Your task to perform on an android device: Go to Yahoo.com Image 0: 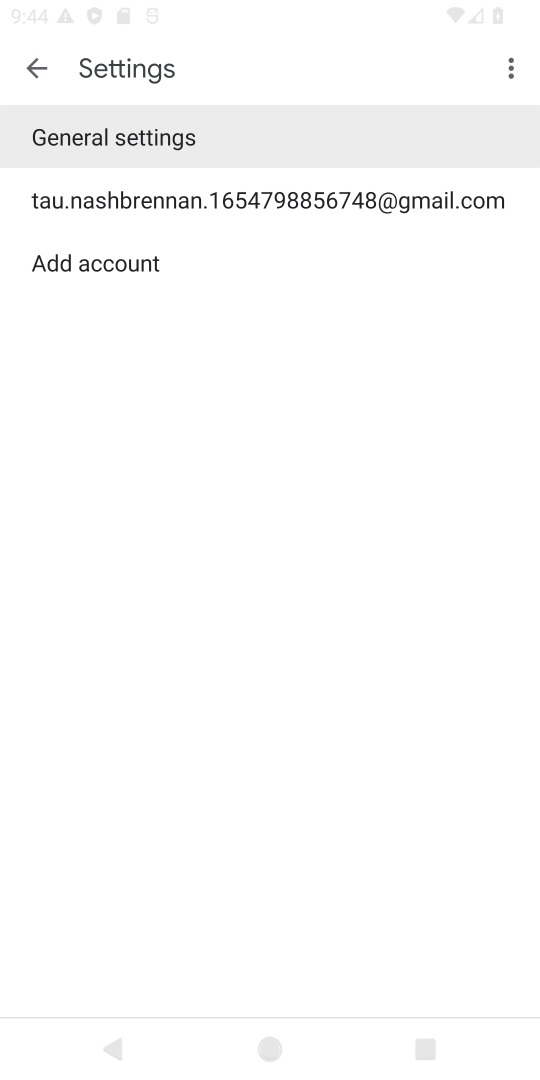
Step 0: press home button
Your task to perform on an android device: Go to Yahoo.com Image 1: 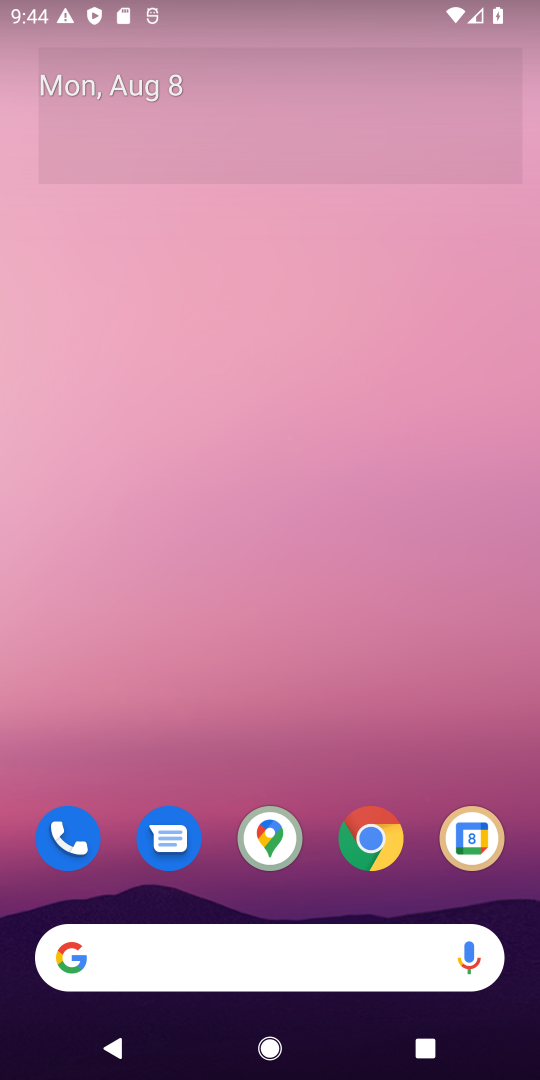
Step 1: click (81, 963)
Your task to perform on an android device: Go to Yahoo.com Image 2: 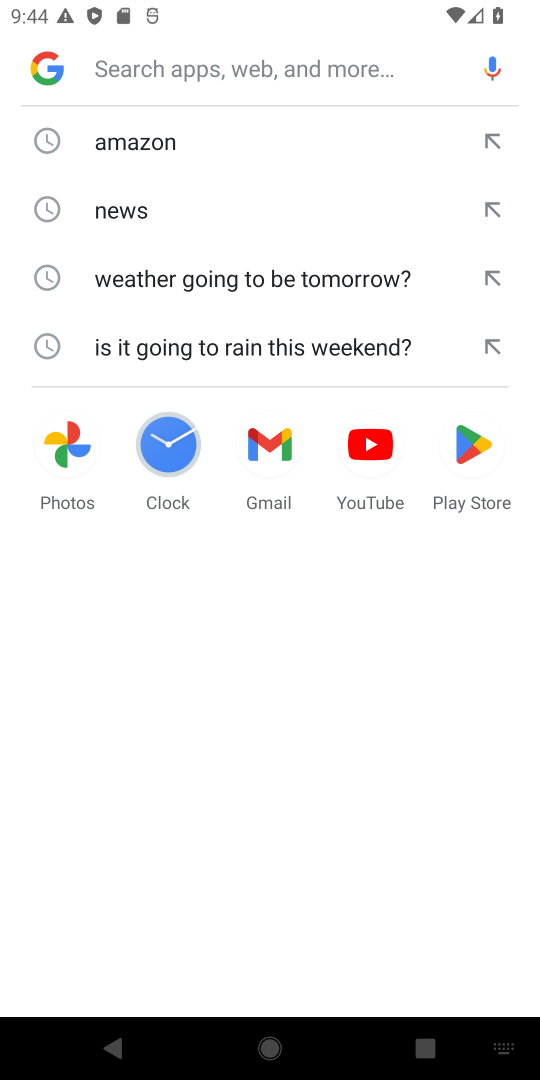
Step 2: type "Yahoo.com"
Your task to perform on an android device: Go to Yahoo.com Image 3: 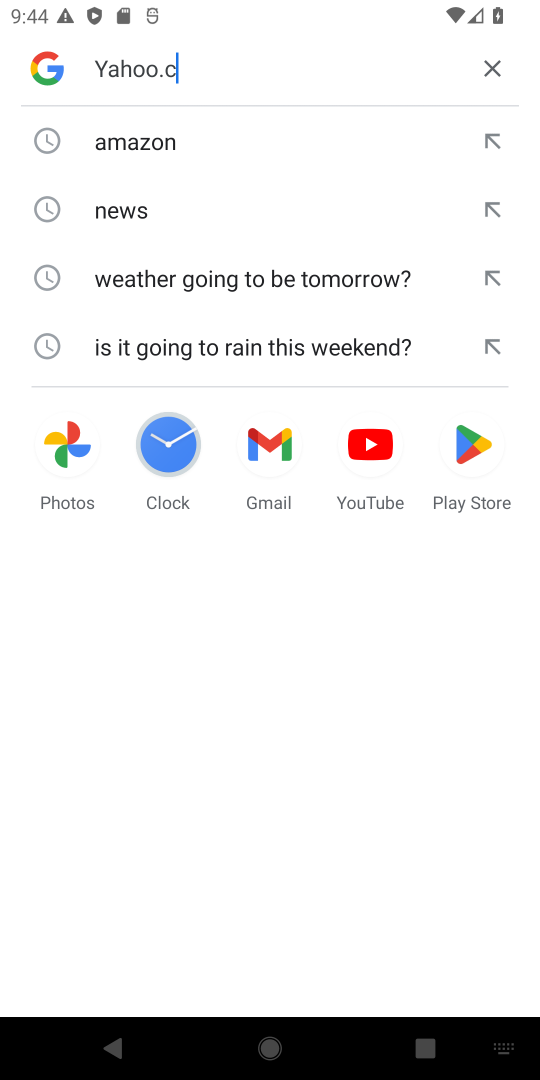
Step 3: press enter
Your task to perform on an android device: Go to Yahoo.com Image 4: 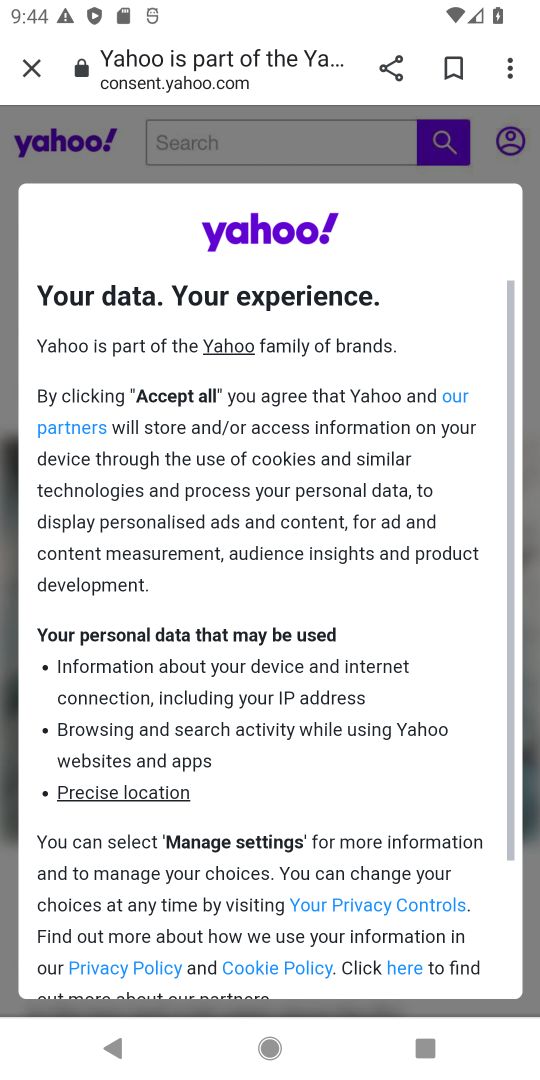
Step 4: drag from (511, 810) to (367, 1068)
Your task to perform on an android device: Go to Yahoo.com Image 5: 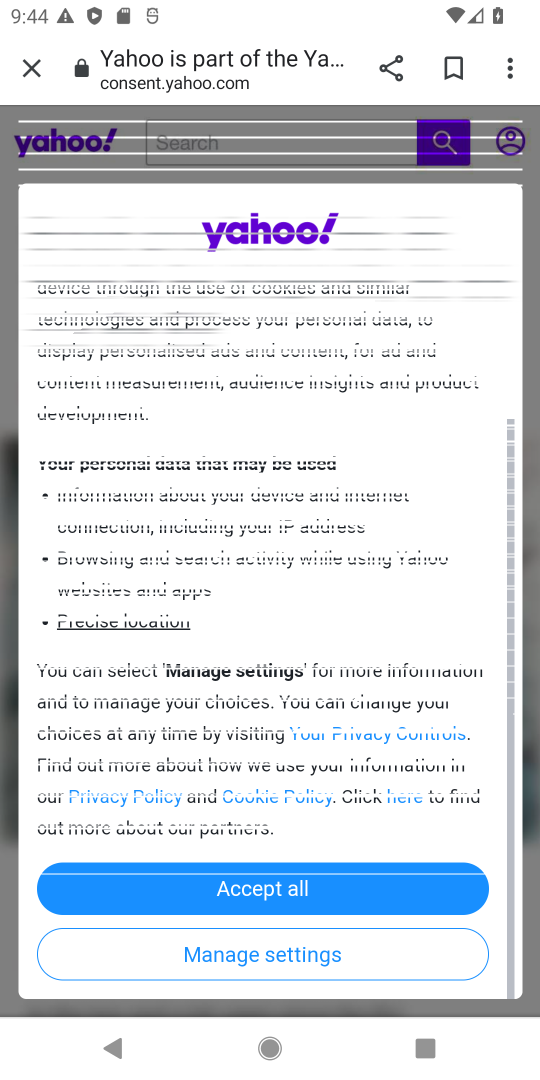
Step 5: click (180, 878)
Your task to perform on an android device: Go to Yahoo.com Image 6: 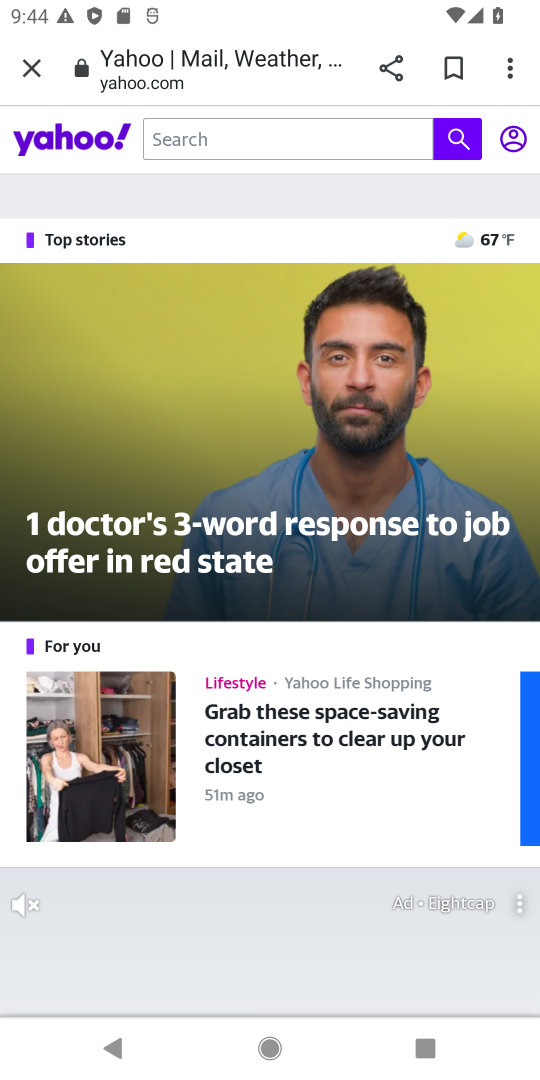
Step 6: task complete